Your task to perform on an android device: turn off airplane mode Image 0: 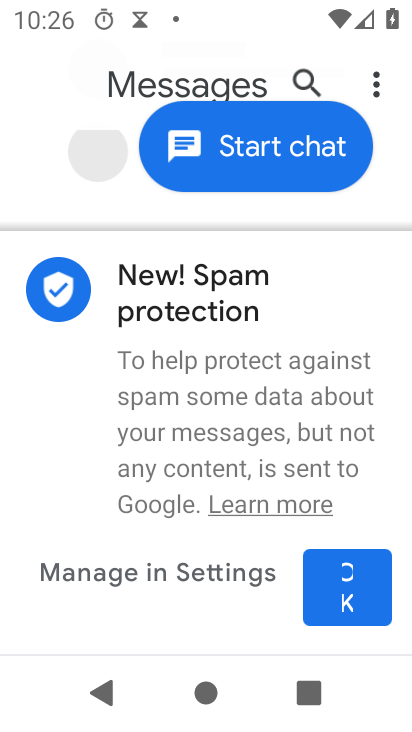
Step 0: press home button
Your task to perform on an android device: turn off airplane mode Image 1: 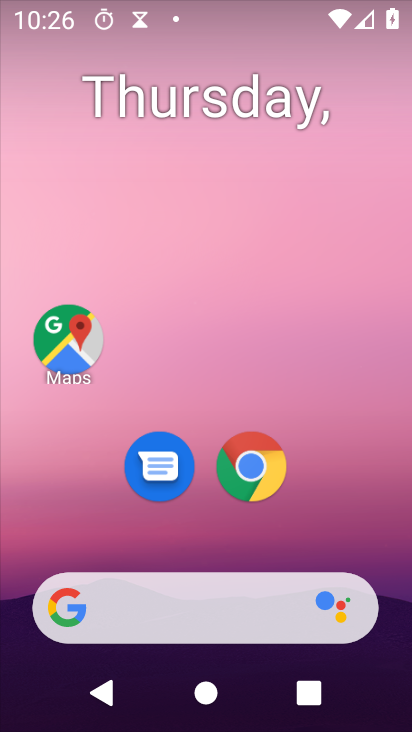
Step 1: drag from (156, 609) to (327, 29)
Your task to perform on an android device: turn off airplane mode Image 2: 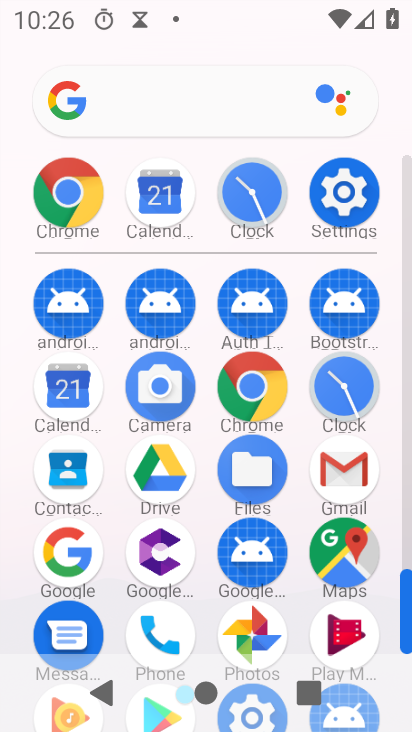
Step 2: click (341, 202)
Your task to perform on an android device: turn off airplane mode Image 3: 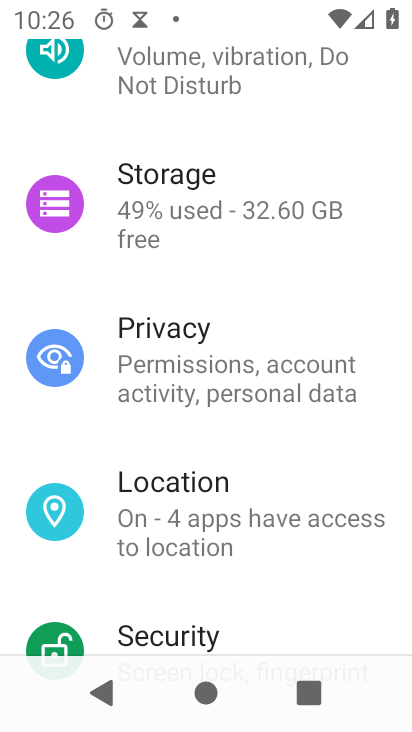
Step 3: drag from (305, 146) to (164, 601)
Your task to perform on an android device: turn off airplane mode Image 4: 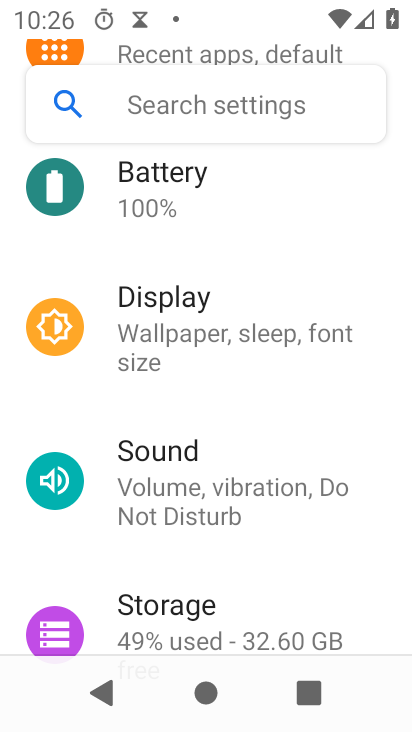
Step 4: drag from (288, 191) to (134, 656)
Your task to perform on an android device: turn off airplane mode Image 5: 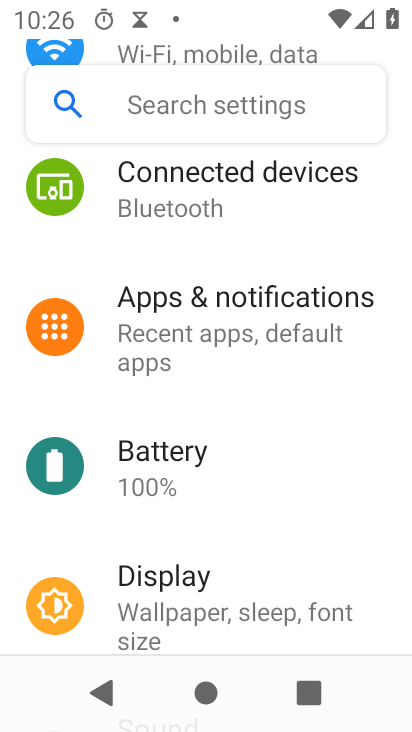
Step 5: drag from (257, 294) to (138, 639)
Your task to perform on an android device: turn off airplane mode Image 6: 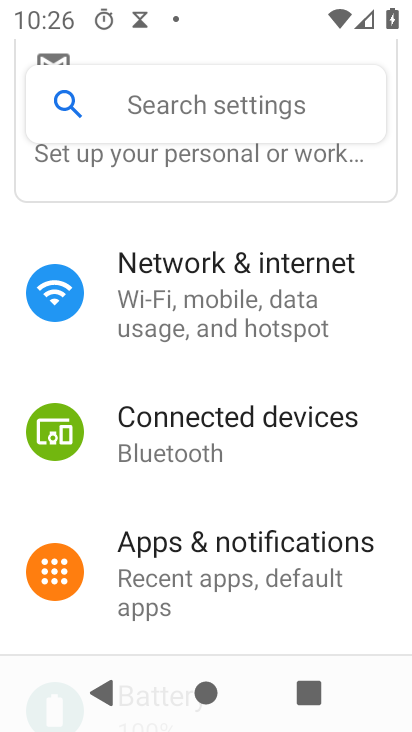
Step 6: click (268, 265)
Your task to perform on an android device: turn off airplane mode Image 7: 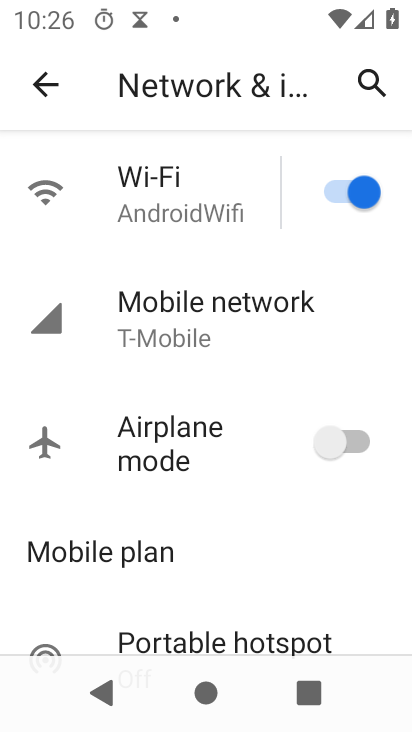
Step 7: task complete